Your task to perform on an android device: Open Chrome and go to the settings page Image 0: 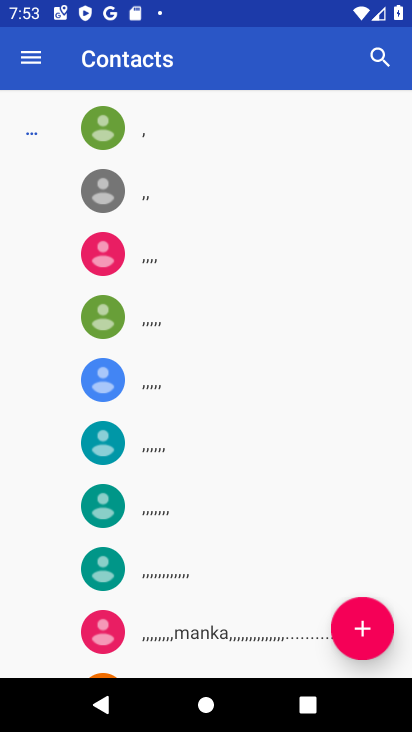
Step 0: press home button
Your task to perform on an android device: Open Chrome and go to the settings page Image 1: 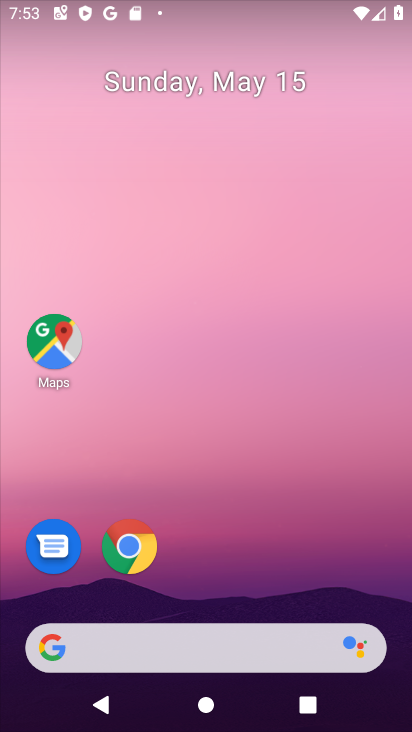
Step 1: click (117, 561)
Your task to perform on an android device: Open Chrome and go to the settings page Image 2: 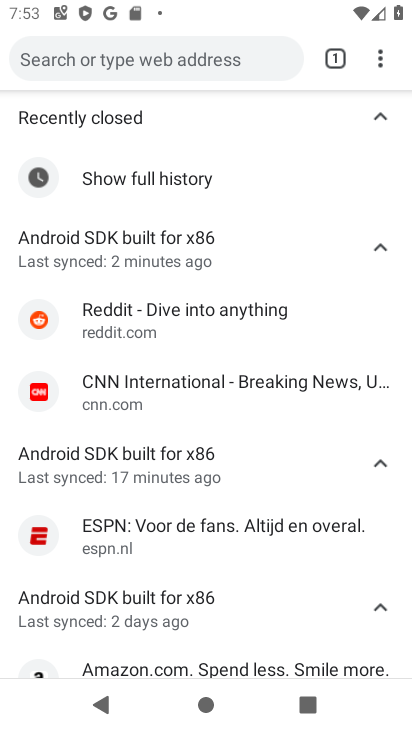
Step 2: click (375, 53)
Your task to perform on an android device: Open Chrome and go to the settings page Image 3: 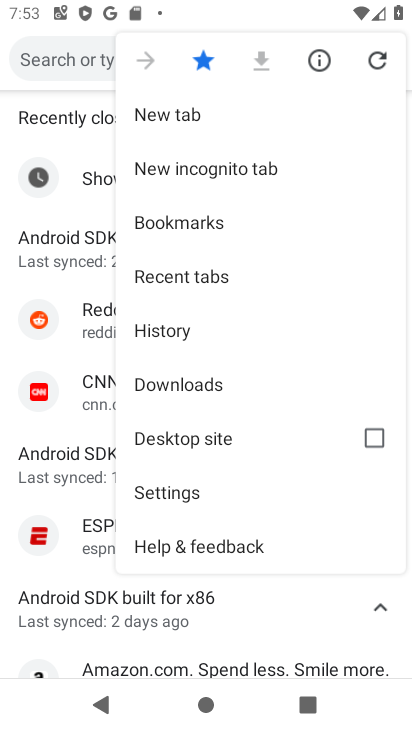
Step 3: click (201, 482)
Your task to perform on an android device: Open Chrome and go to the settings page Image 4: 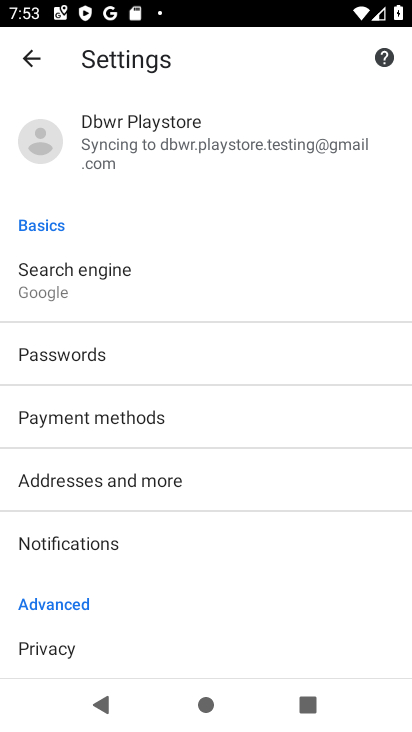
Step 4: task complete